Your task to perform on an android device: Go to privacy settings Image 0: 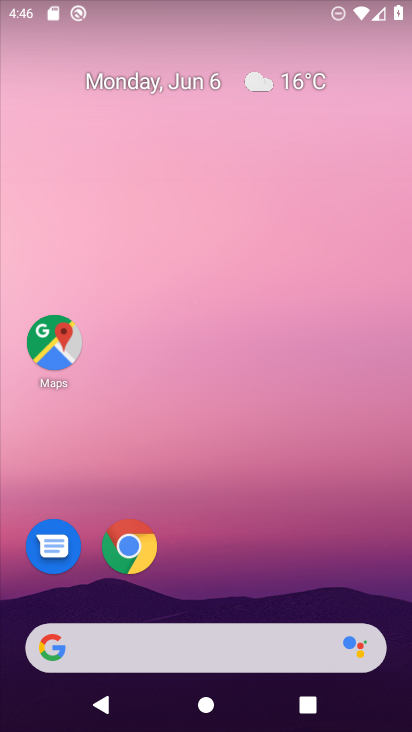
Step 0: drag from (194, 615) to (356, 9)
Your task to perform on an android device: Go to privacy settings Image 1: 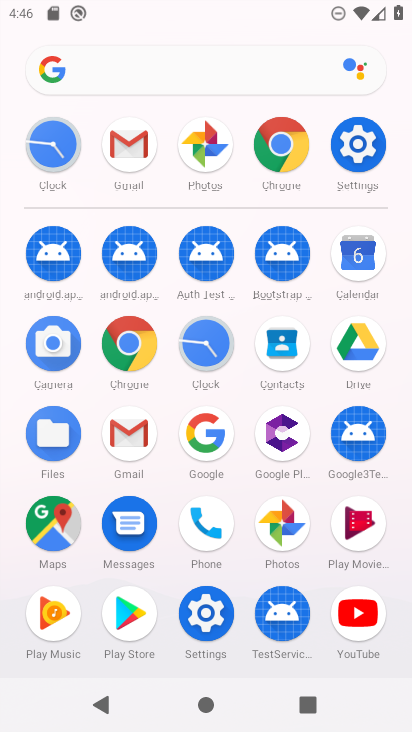
Step 1: click (365, 131)
Your task to perform on an android device: Go to privacy settings Image 2: 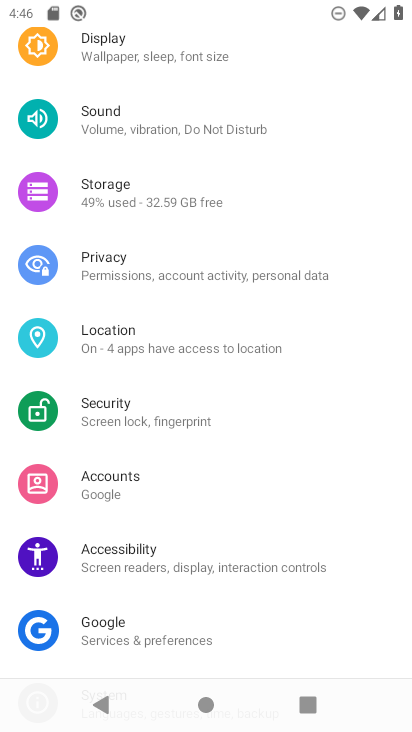
Step 2: click (117, 276)
Your task to perform on an android device: Go to privacy settings Image 3: 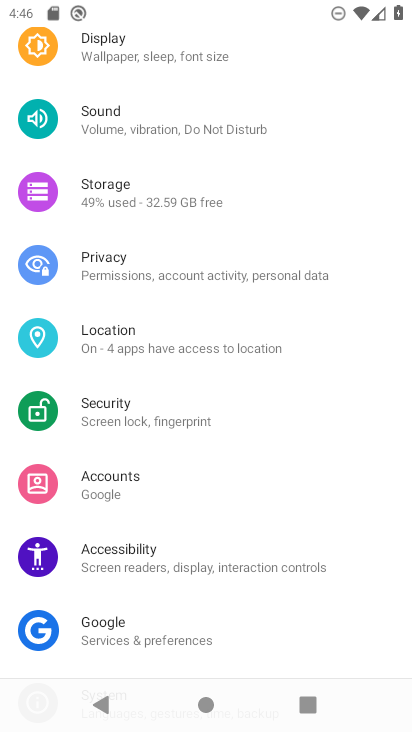
Step 3: task complete